Your task to perform on an android device: turn off picture-in-picture Image 0: 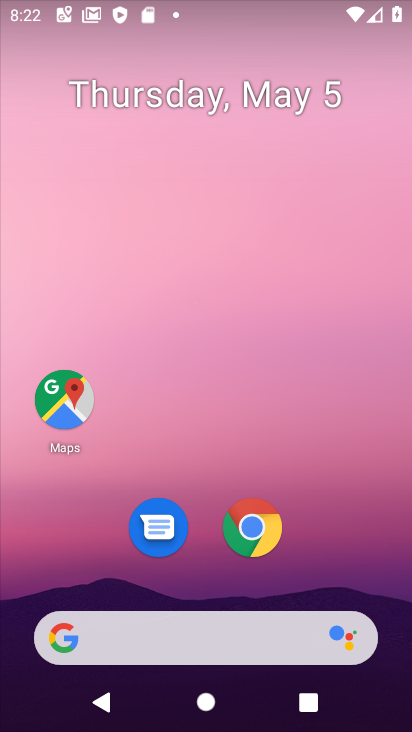
Step 0: click (246, 539)
Your task to perform on an android device: turn off picture-in-picture Image 1: 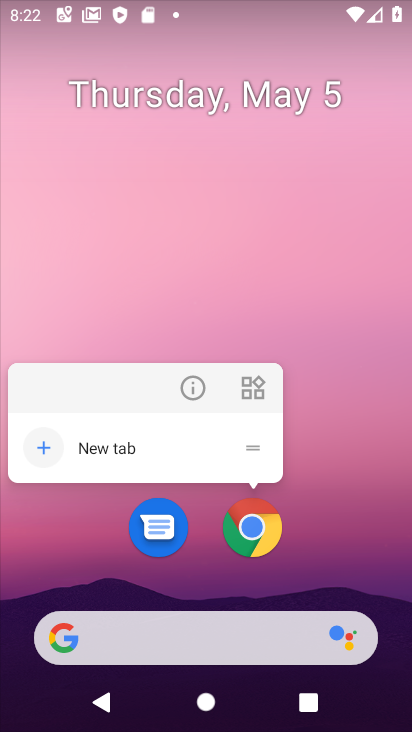
Step 1: click (195, 389)
Your task to perform on an android device: turn off picture-in-picture Image 2: 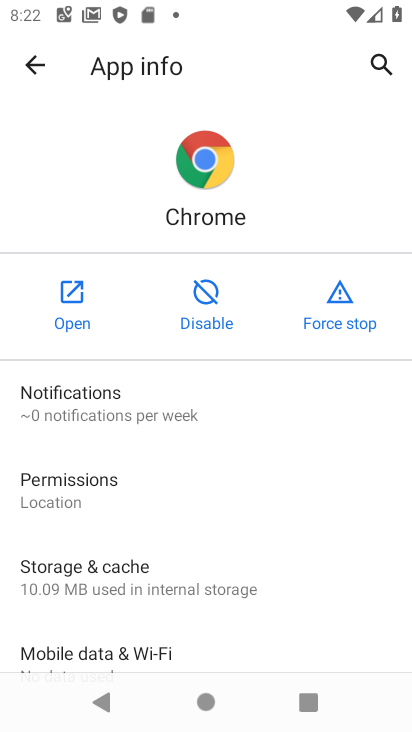
Step 2: drag from (354, 628) to (330, 34)
Your task to perform on an android device: turn off picture-in-picture Image 3: 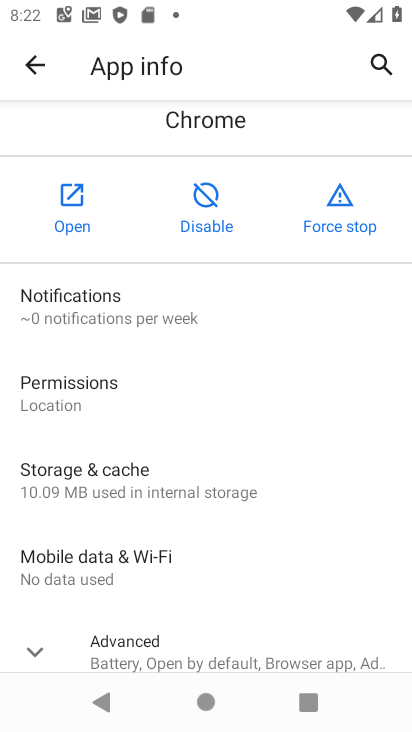
Step 3: click (189, 654)
Your task to perform on an android device: turn off picture-in-picture Image 4: 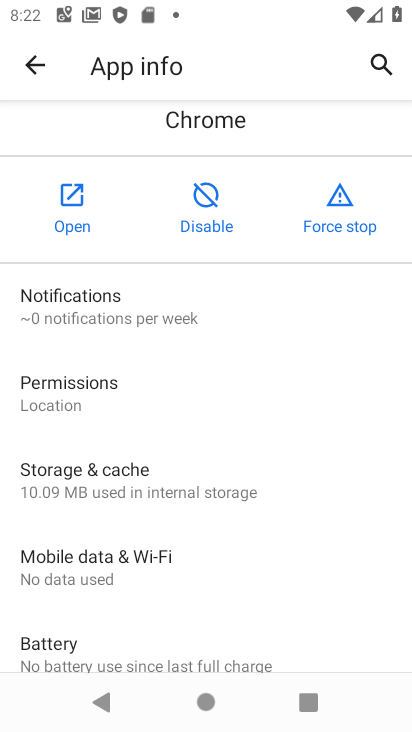
Step 4: drag from (246, 576) to (335, 3)
Your task to perform on an android device: turn off picture-in-picture Image 5: 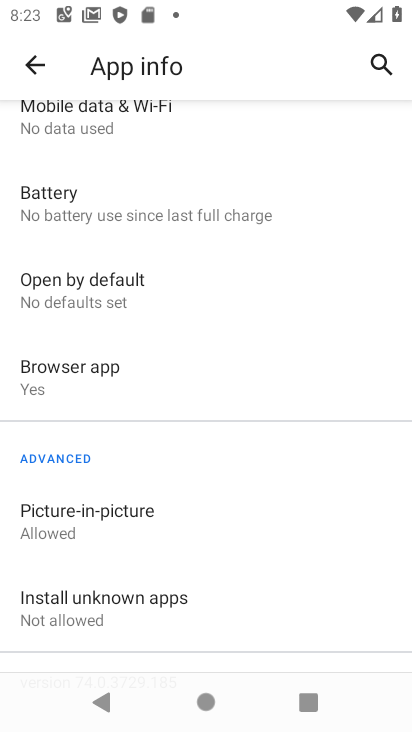
Step 5: click (87, 522)
Your task to perform on an android device: turn off picture-in-picture Image 6: 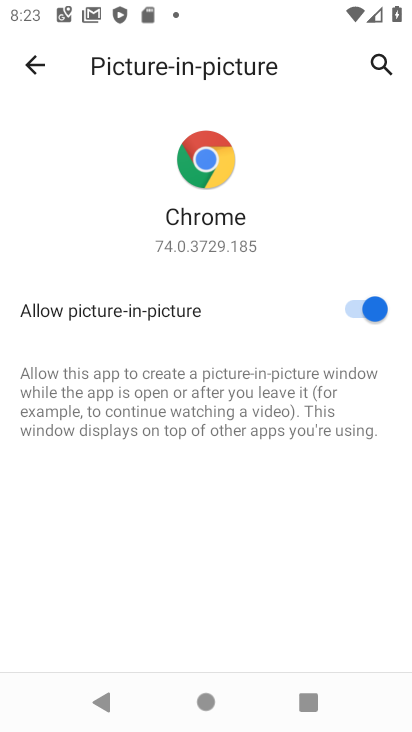
Step 6: click (370, 301)
Your task to perform on an android device: turn off picture-in-picture Image 7: 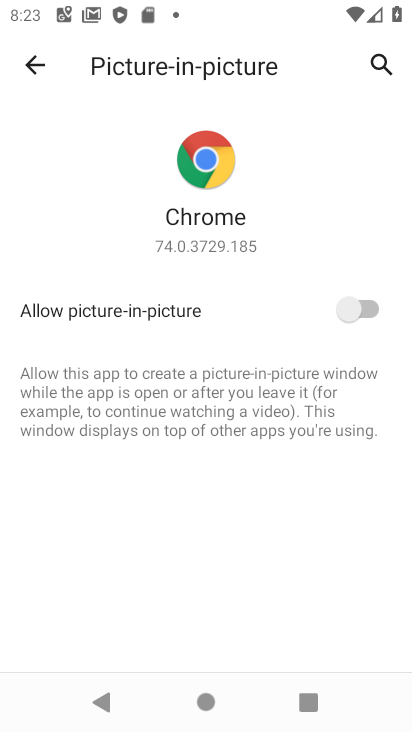
Step 7: task complete